Your task to perform on an android device: remove spam from my inbox in the gmail app Image 0: 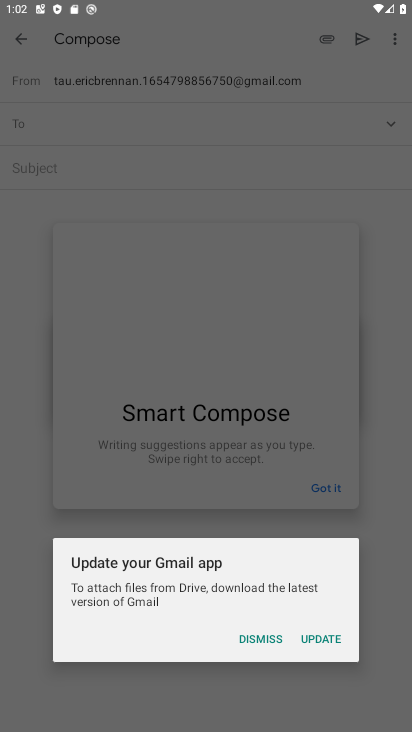
Step 0: press home button
Your task to perform on an android device: remove spam from my inbox in the gmail app Image 1: 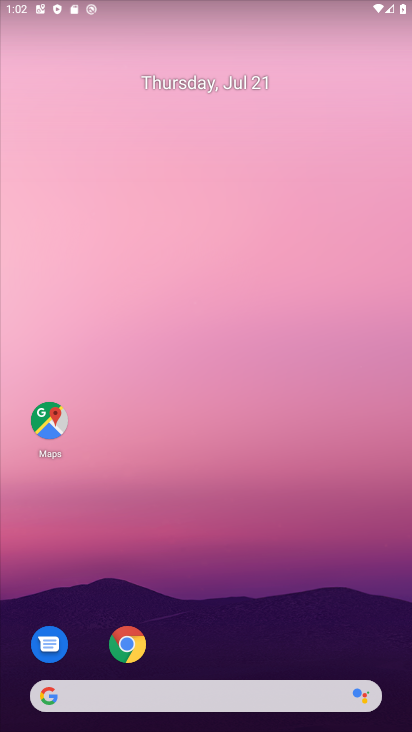
Step 1: drag from (206, 669) to (232, 64)
Your task to perform on an android device: remove spam from my inbox in the gmail app Image 2: 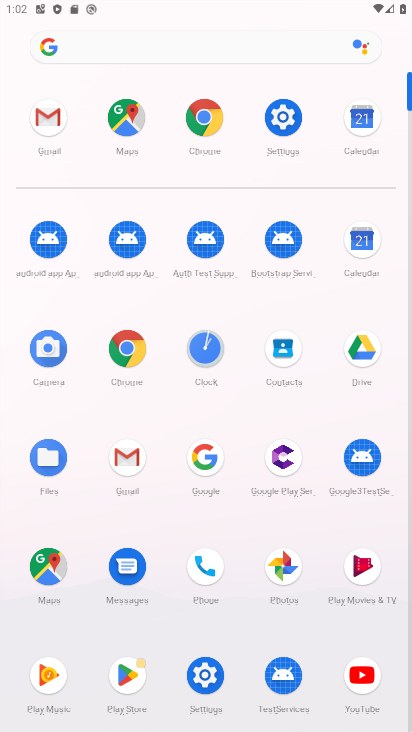
Step 2: click (129, 462)
Your task to perform on an android device: remove spam from my inbox in the gmail app Image 3: 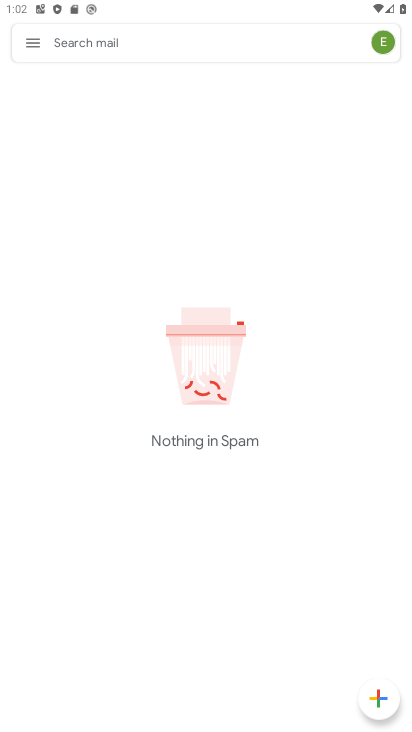
Step 3: click (29, 36)
Your task to perform on an android device: remove spam from my inbox in the gmail app Image 4: 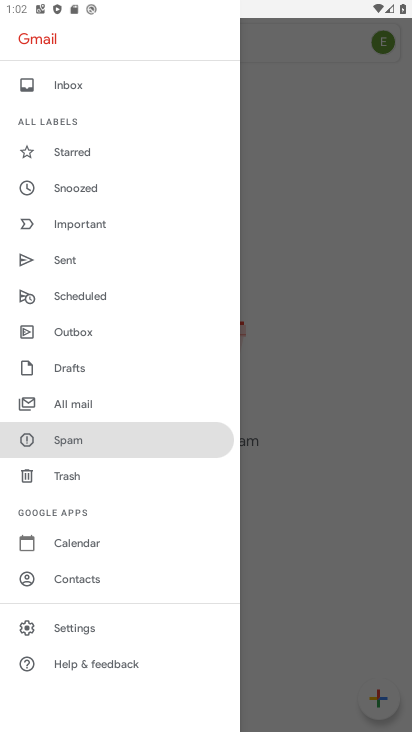
Step 4: click (322, 264)
Your task to perform on an android device: remove spam from my inbox in the gmail app Image 5: 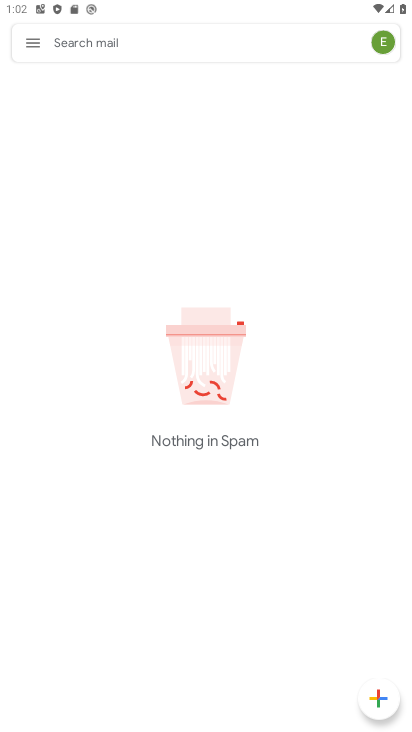
Step 5: task complete